Your task to perform on an android device: check android version Image 0: 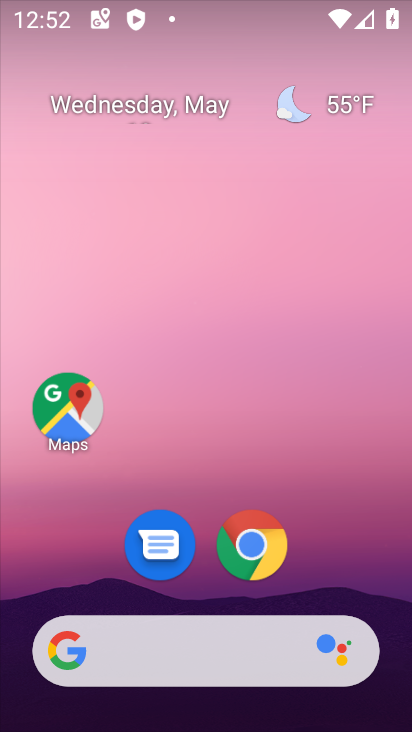
Step 0: drag from (370, 568) to (348, 120)
Your task to perform on an android device: check android version Image 1: 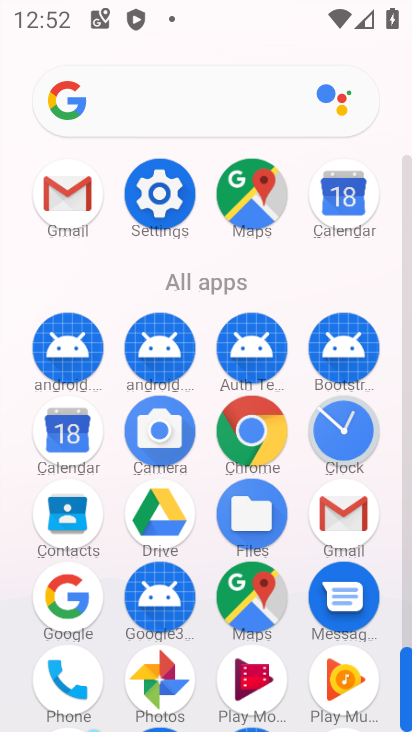
Step 1: click (240, 433)
Your task to perform on an android device: check android version Image 2: 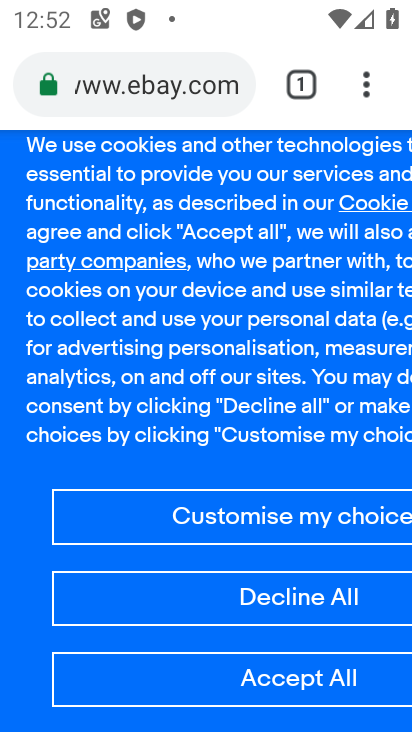
Step 2: press home button
Your task to perform on an android device: check android version Image 3: 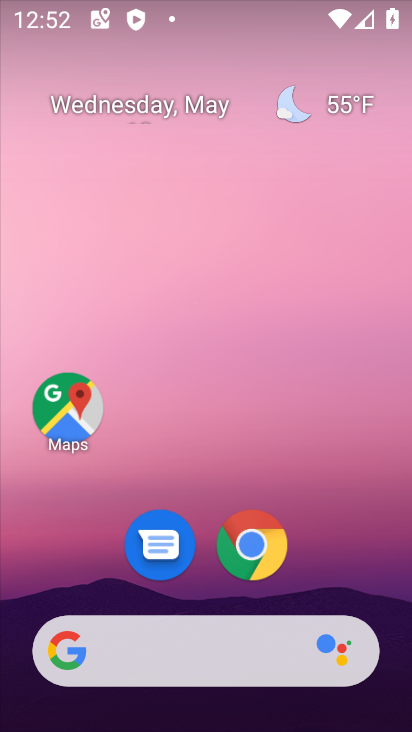
Step 3: drag from (348, 482) to (383, 430)
Your task to perform on an android device: check android version Image 4: 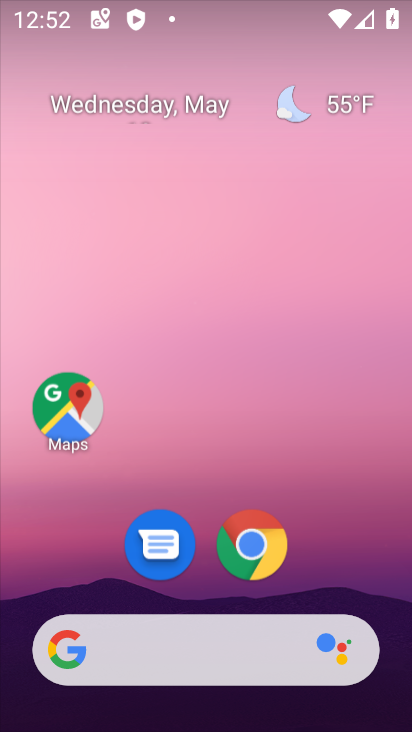
Step 4: drag from (369, 467) to (410, 63)
Your task to perform on an android device: check android version Image 5: 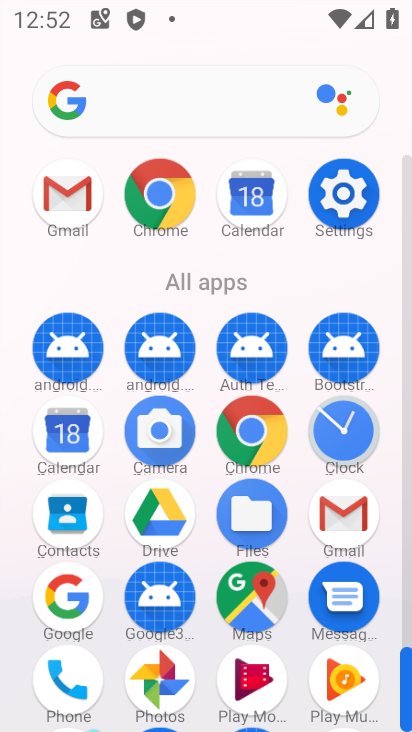
Step 5: click (343, 207)
Your task to perform on an android device: check android version Image 6: 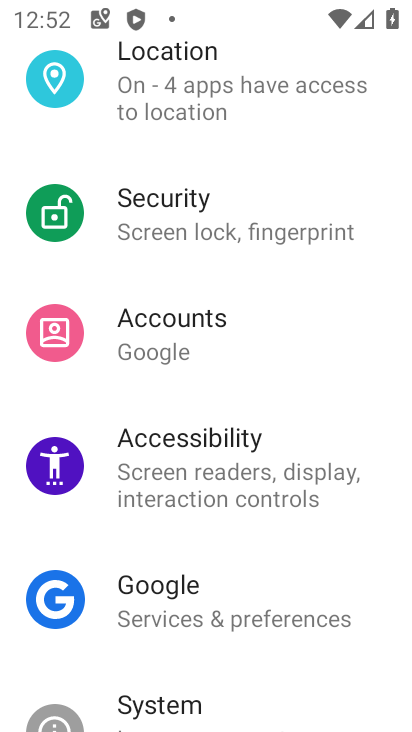
Step 6: drag from (253, 638) to (223, 148)
Your task to perform on an android device: check android version Image 7: 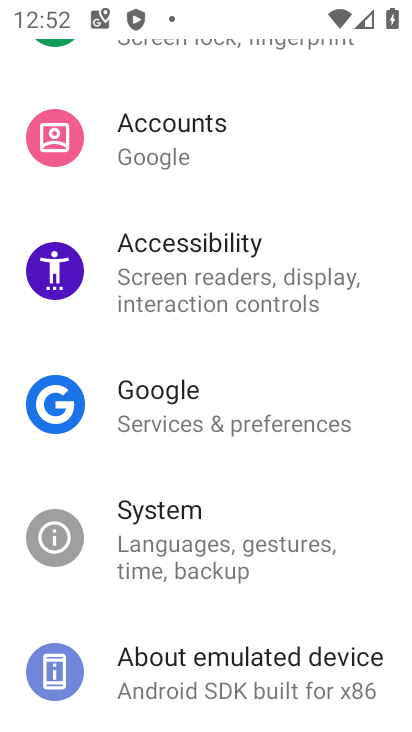
Step 7: click (223, 663)
Your task to perform on an android device: check android version Image 8: 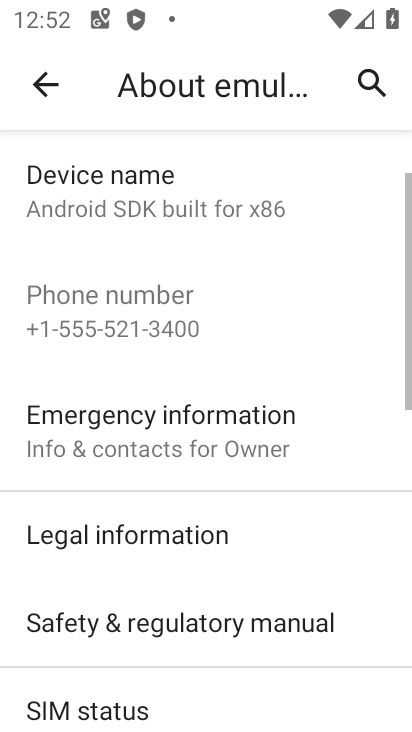
Step 8: drag from (242, 534) to (221, 263)
Your task to perform on an android device: check android version Image 9: 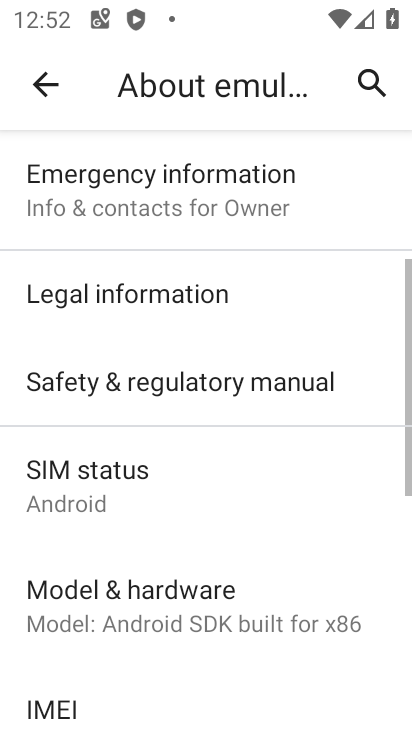
Step 9: drag from (198, 531) to (187, 202)
Your task to perform on an android device: check android version Image 10: 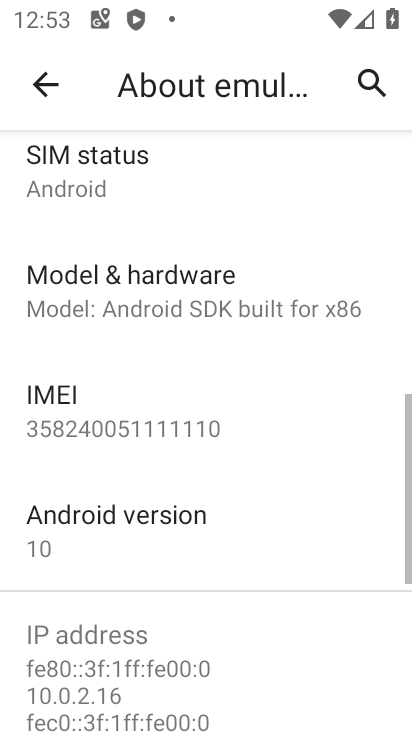
Step 10: click (172, 514)
Your task to perform on an android device: check android version Image 11: 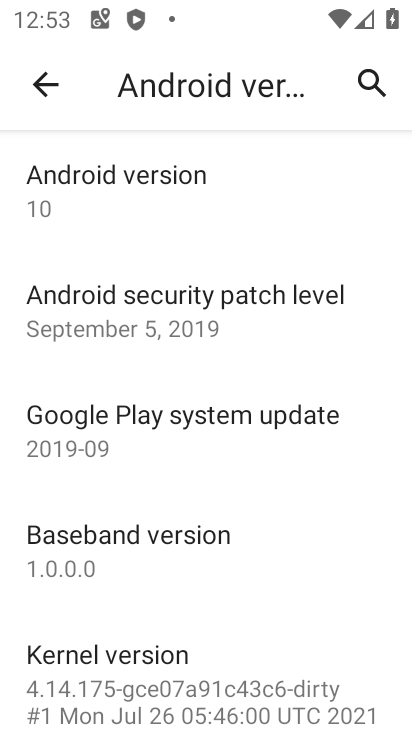
Step 11: task complete